Your task to perform on an android device: Search for Mexican restaurants on Maps Image 0: 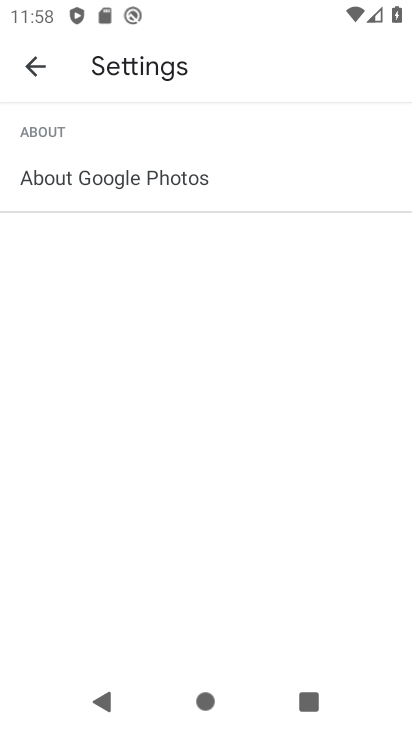
Step 0: press home button
Your task to perform on an android device: Search for Mexican restaurants on Maps Image 1: 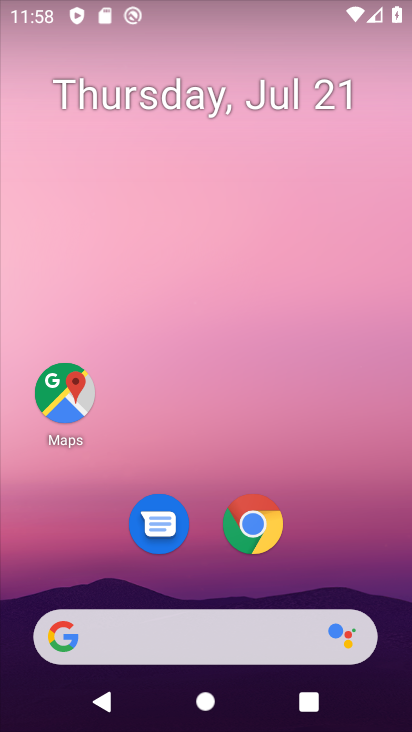
Step 1: click (62, 389)
Your task to perform on an android device: Search for Mexican restaurants on Maps Image 2: 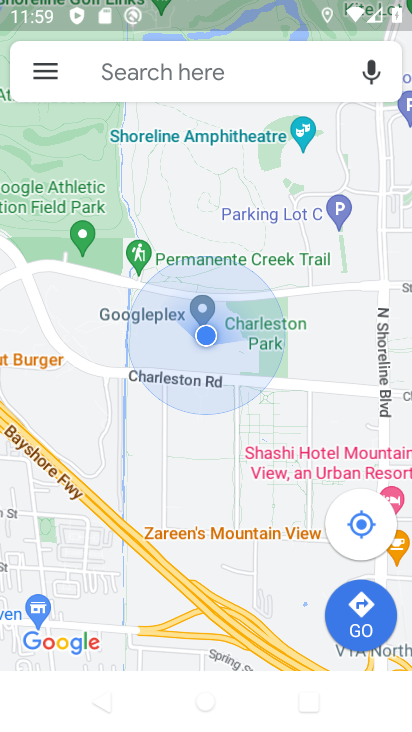
Step 2: click (242, 78)
Your task to perform on an android device: Search for Mexican restaurants on Maps Image 3: 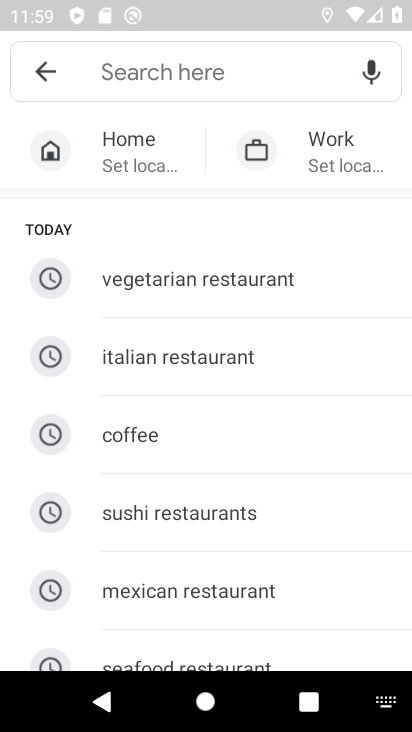
Step 3: click (187, 593)
Your task to perform on an android device: Search for Mexican restaurants on Maps Image 4: 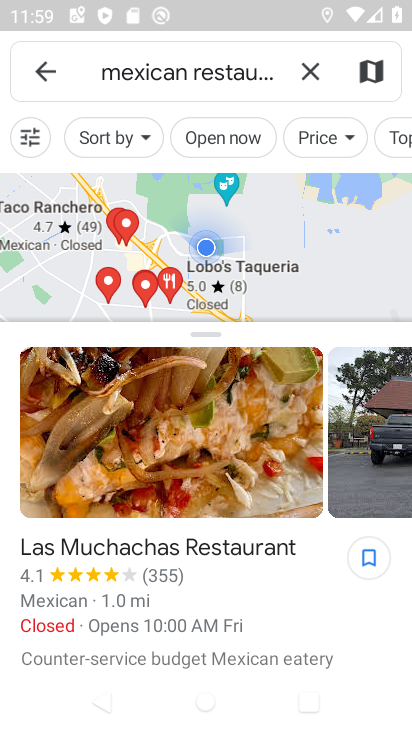
Step 4: task complete